Your task to perform on an android device: What's the weather today? Image 0: 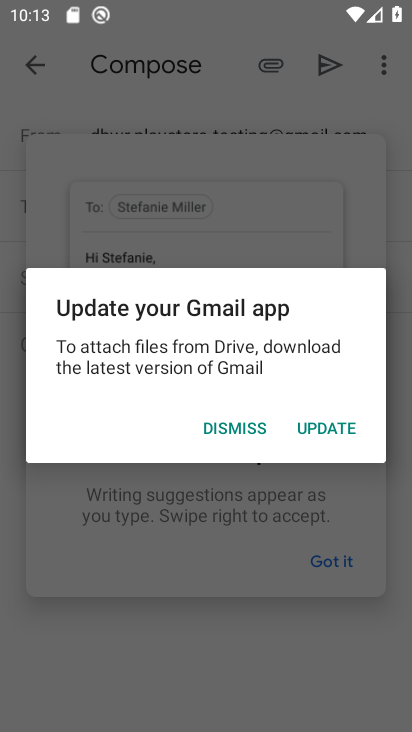
Step 0: press home button
Your task to perform on an android device: What's the weather today? Image 1: 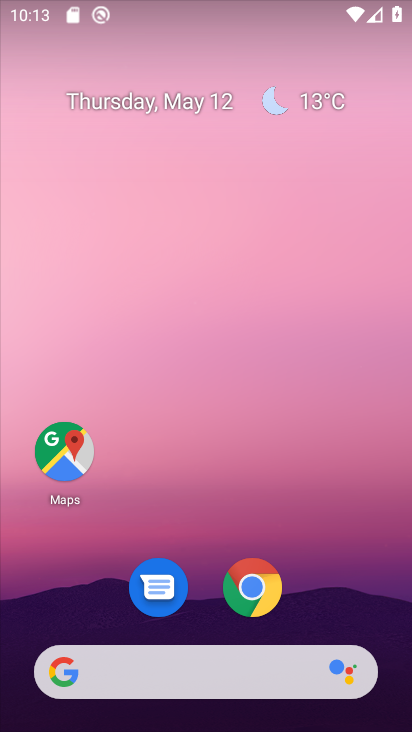
Step 1: click (172, 670)
Your task to perform on an android device: What's the weather today? Image 2: 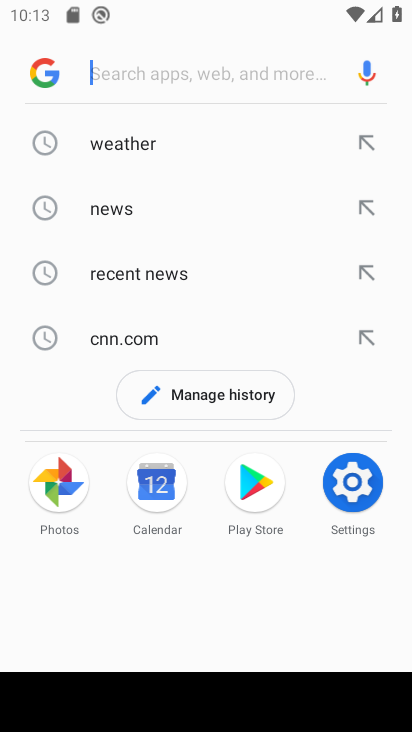
Step 2: click (125, 140)
Your task to perform on an android device: What's the weather today? Image 3: 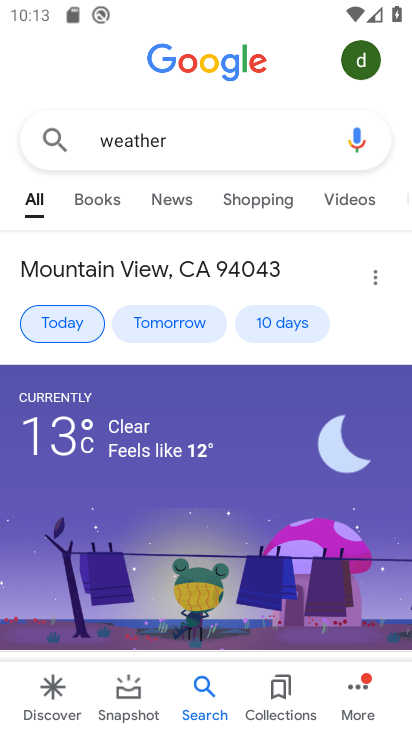
Step 3: task complete